Your task to perform on an android device: star an email in the gmail app Image 0: 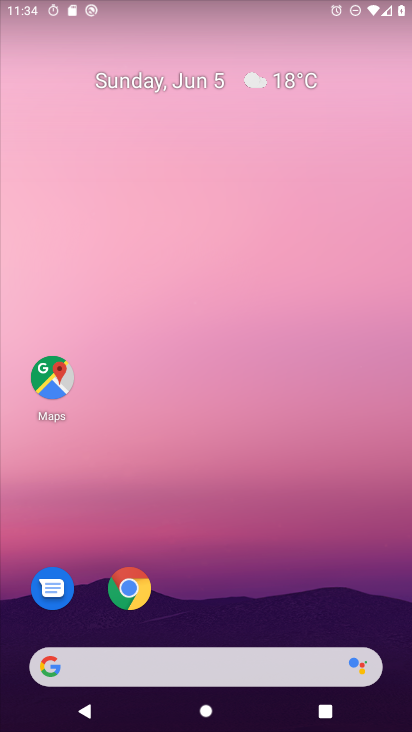
Step 0: drag from (271, 560) to (309, 192)
Your task to perform on an android device: star an email in the gmail app Image 1: 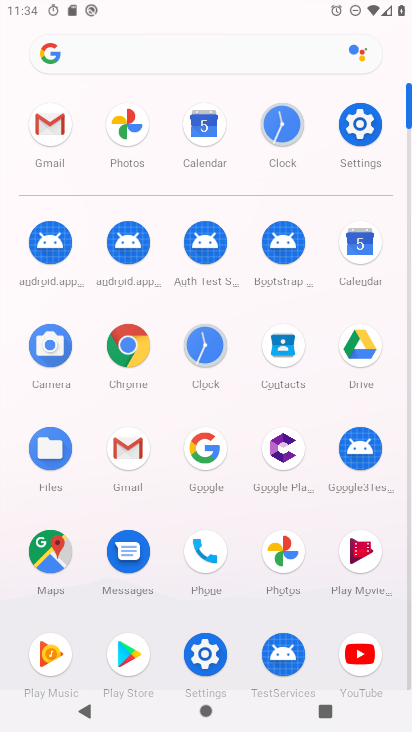
Step 1: click (131, 458)
Your task to perform on an android device: star an email in the gmail app Image 2: 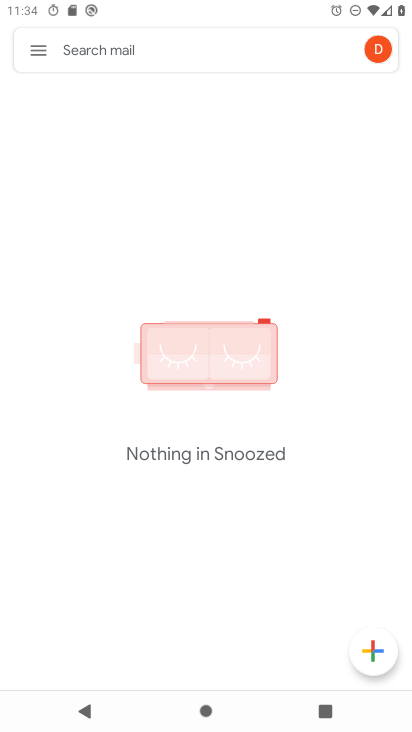
Step 2: click (38, 39)
Your task to perform on an android device: star an email in the gmail app Image 3: 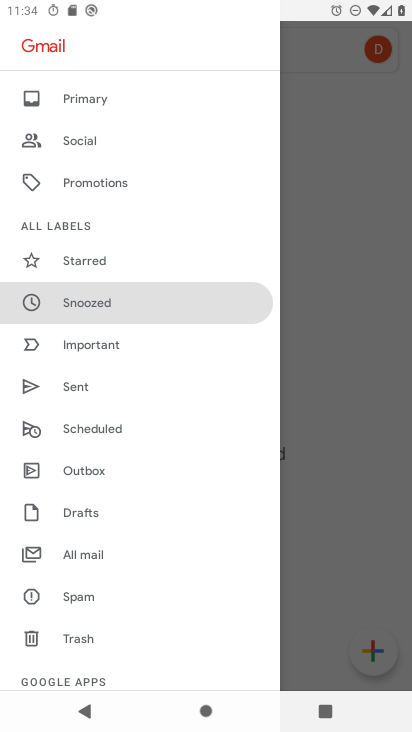
Step 3: drag from (176, 236) to (165, 407)
Your task to perform on an android device: star an email in the gmail app Image 4: 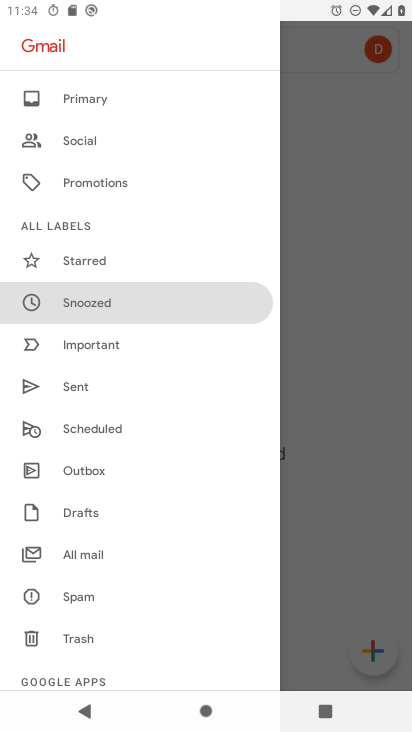
Step 4: click (122, 98)
Your task to perform on an android device: star an email in the gmail app Image 5: 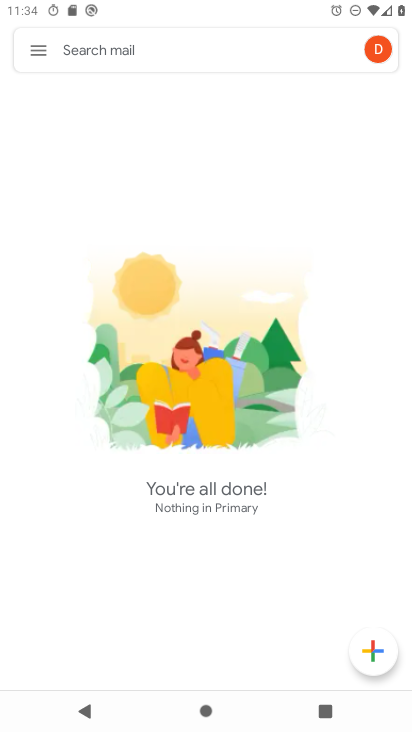
Step 5: task complete